Your task to perform on an android device: set the timer Image 0: 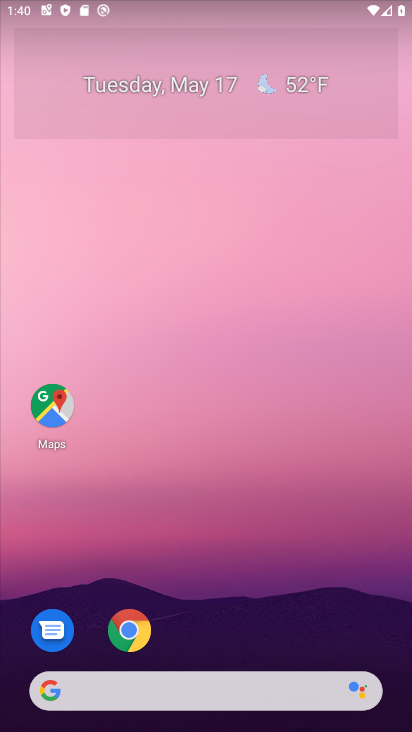
Step 0: drag from (208, 628) to (294, 86)
Your task to perform on an android device: set the timer Image 1: 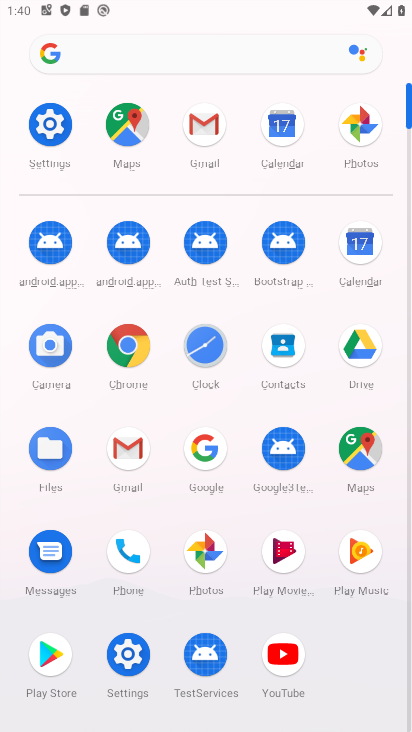
Step 1: click (211, 339)
Your task to perform on an android device: set the timer Image 2: 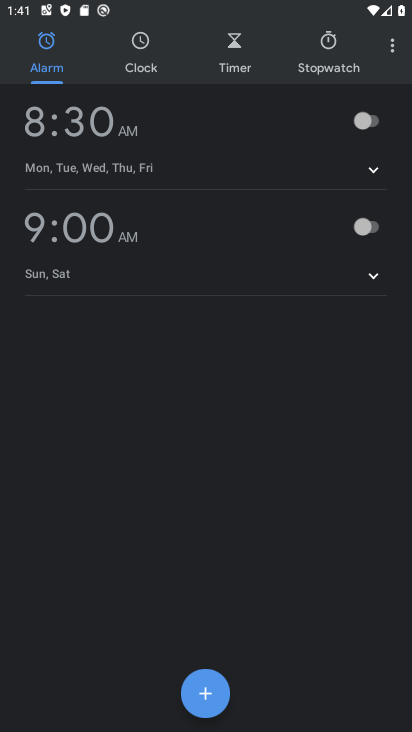
Step 2: click (240, 37)
Your task to perform on an android device: set the timer Image 3: 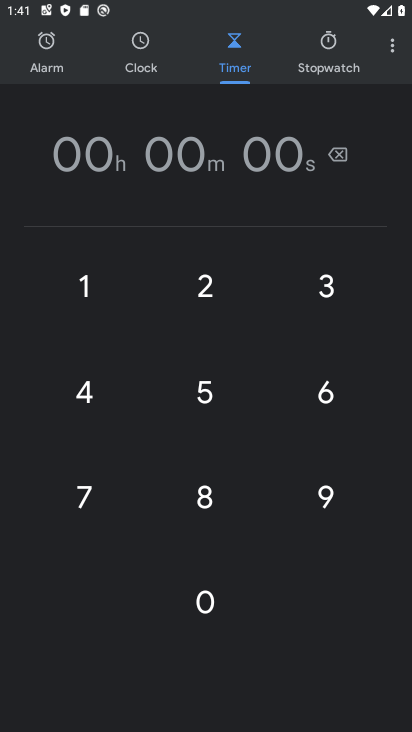
Step 3: click (205, 207)
Your task to perform on an android device: set the timer Image 4: 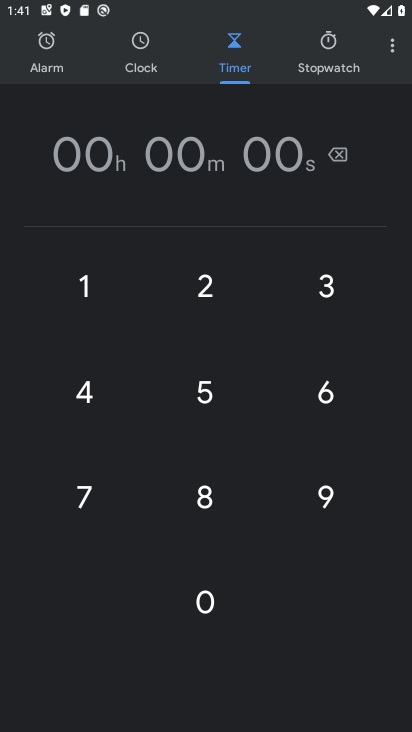
Step 4: click (213, 293)
Your task to perform on an android device: set the timer Image 5: 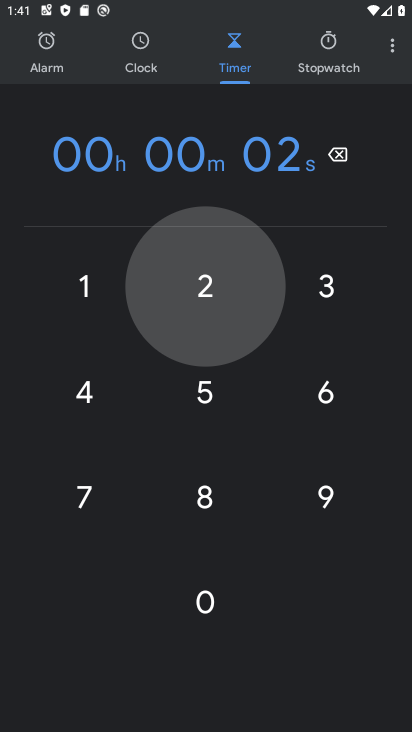
Step 5: click (201, 387)
Your task to perform on an android device: set the timer Image 6: 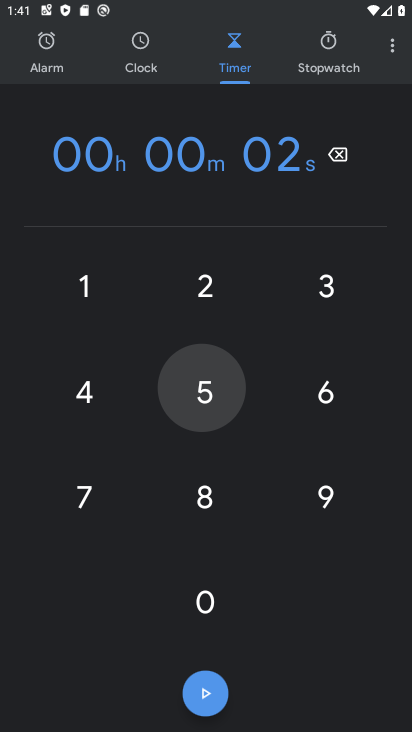
Step 6: click (395, 337)
Your task to perform on an android device: set the timer Image 7: 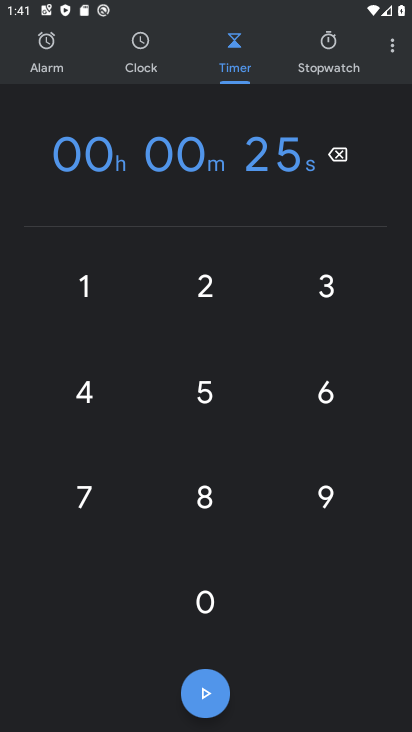
Step 7: task complete